Your task to perform on an android device: Go to privacy settings Image 0: 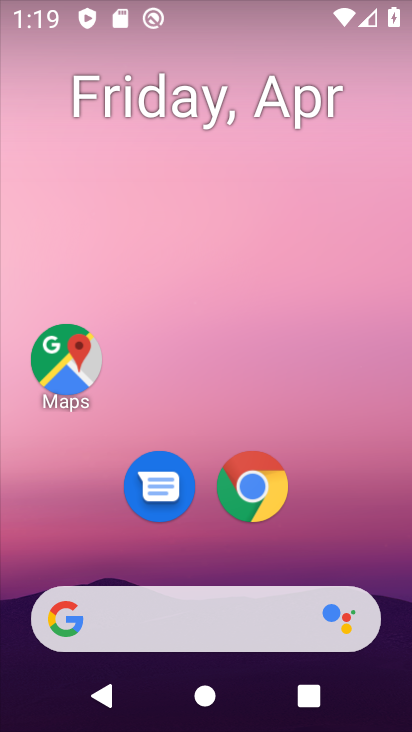
Step 0: click (70, 618)
Your task to perform on an android device: Go to privacy settings Image 1: 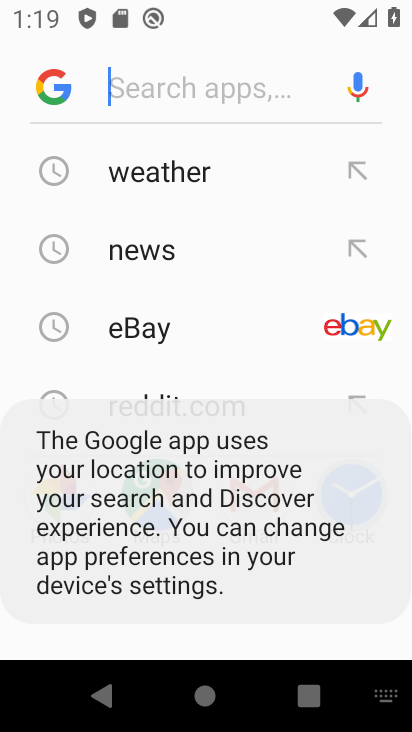
Step 1: click (46, 87)
Your task to perform on an android device: Go to privacy settings Image 2: 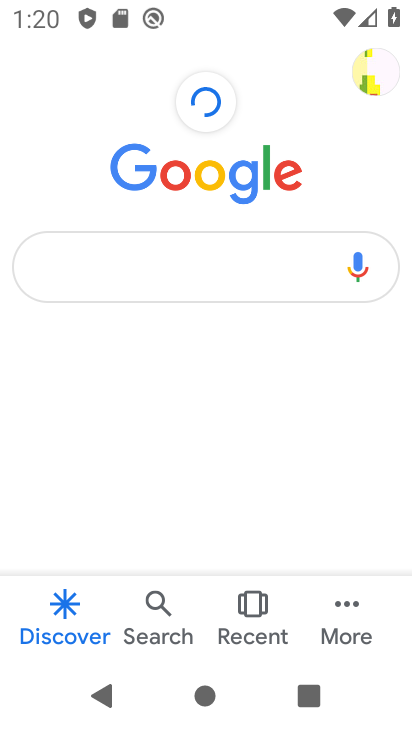
Step 2: click (363, 83)
Your task to perform on an android device: Go to privacy settings Image 3: 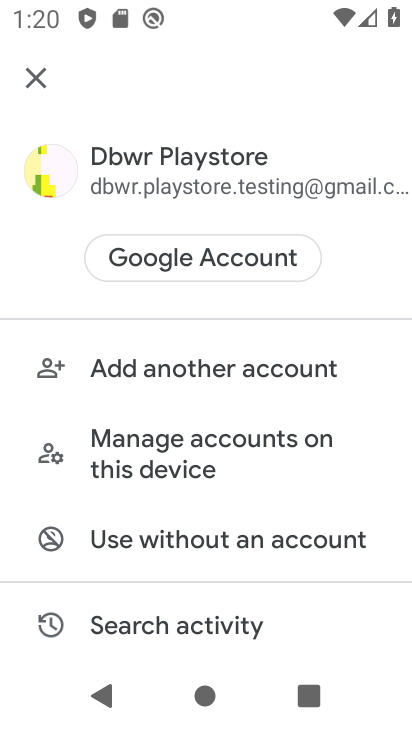
Step 3: press home button
Your task to perform on an android device: Go to privacy settings Image 4: 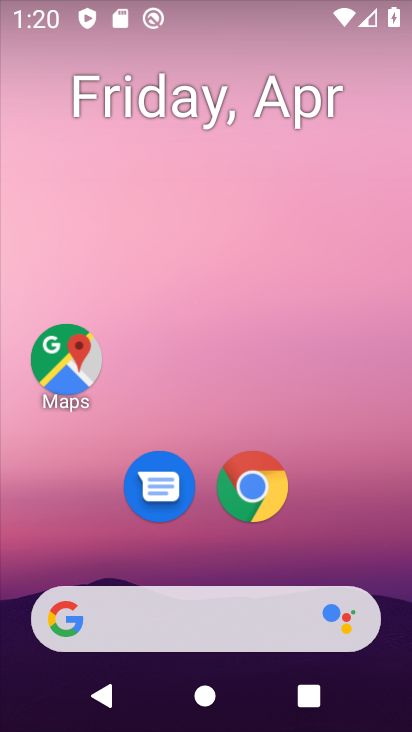
Step 4: drag from (189, 580) to (307, 3)
Your task to perform on an android device: Go to privacy settings Image 5: 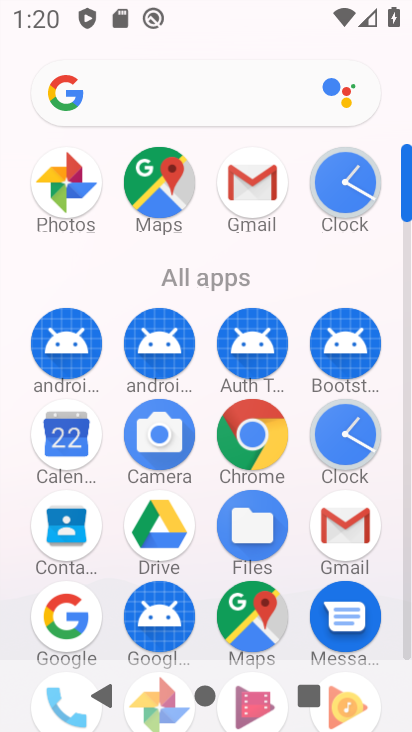
Step 5: drag from (205, 565) to (178, 90)
Your task to perform on an android device: Go to privacy settings Image 6: 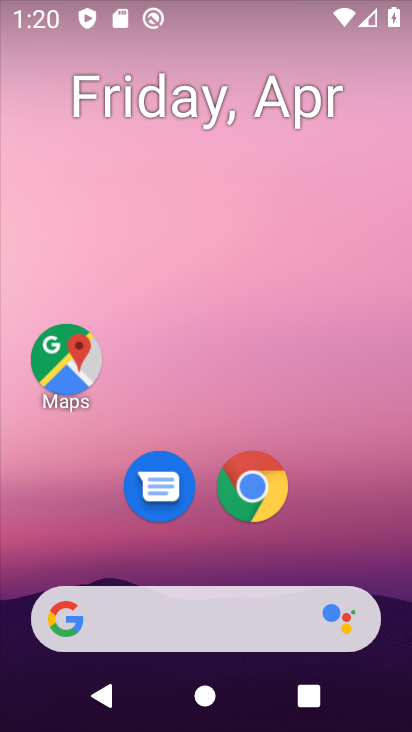
Step 6: drag from (189, 655) to (202, 128)
Your task to perform on an android device: Go to privacy settings Image 7: 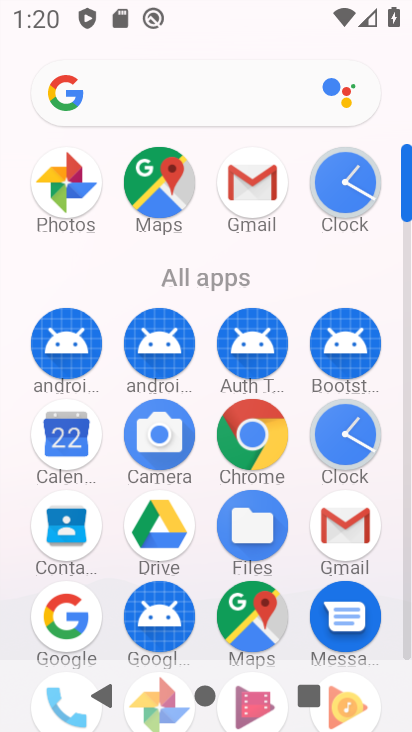
Step 7: drag from (110, 555) to (134, 237)
Your task to perform on an android device: Go to privacy settings Image 8: 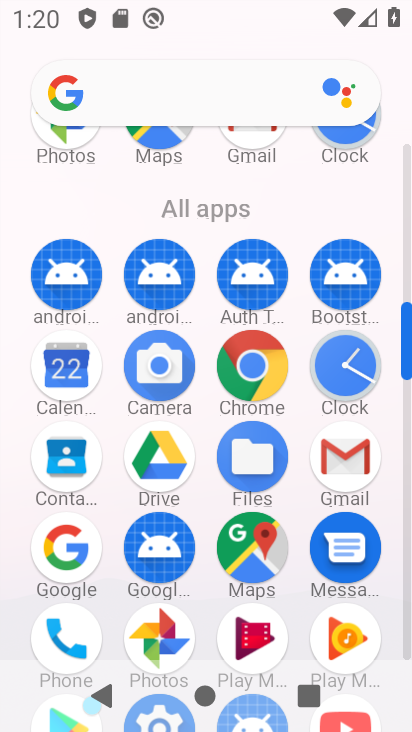
Step 8: drag from (199, 595) to (259, 55)
Your task to perform on an android device: Go to privacy settings Image 9: 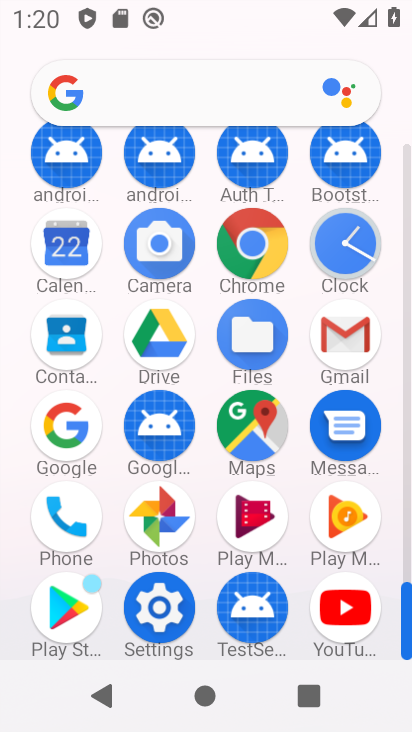
Step 9: click (138, 582)
Your task to perform on an android device: Go to privacy settings Image 10: 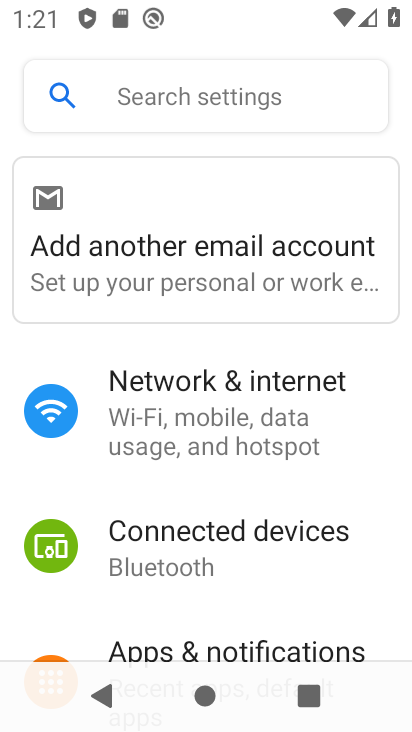
Step 10: drag from (119, 594) to (190, 89)
Your task to perform on an android device: Go to privacy settings Image 11: 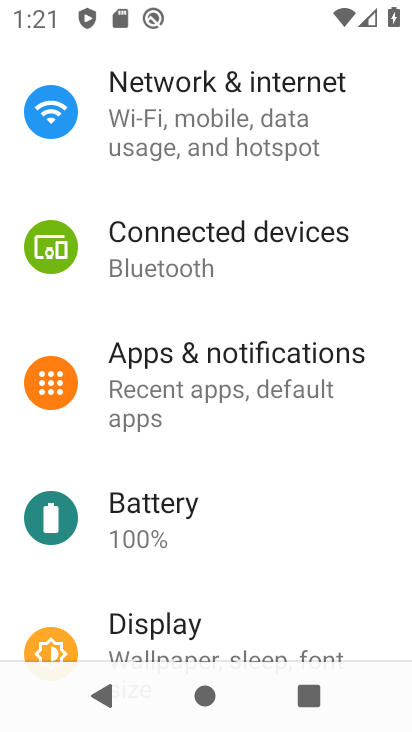
Step 11: drag from (84, 592) to (187, 75)
Your task to perform on an android device: Go to privacy settings Image 12: 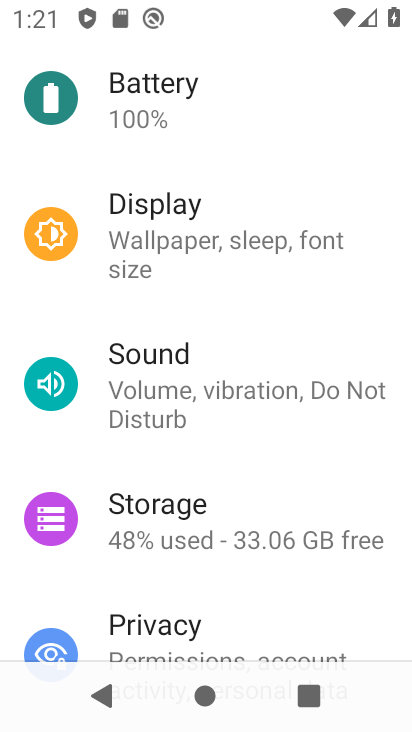
Step 12: click (117, 626)
Your task to perform on an android device: Go to privacy settings Image 13: 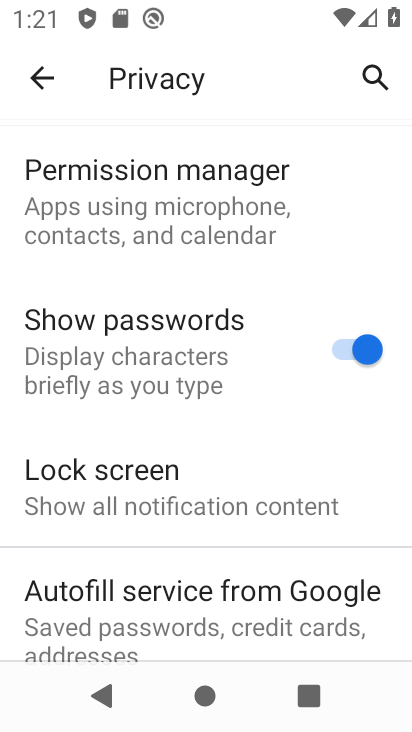
Step 13: task complete